Your task to perform on an android device: delete a single message in the gmail app Image 0: 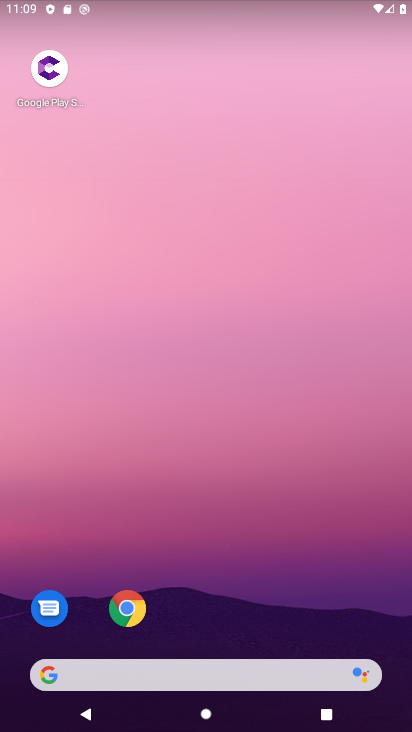
Step 0: drag from (242, 536) to (228, 128)
Your task to perform on an android device: delete a single message in the gmail app Image 1: 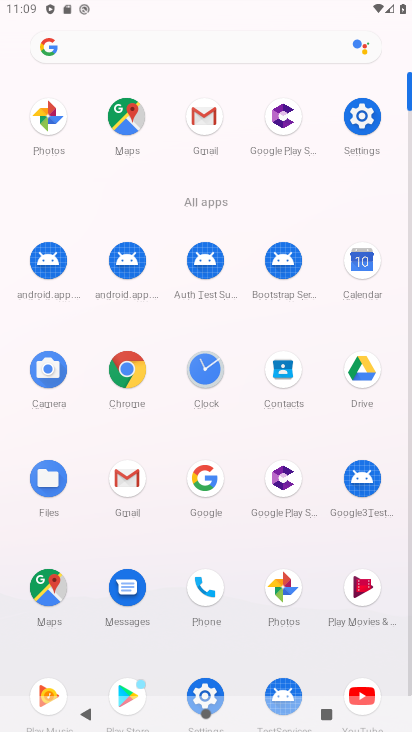
Step 1: click (196, 111)
Your task to perform on an android device: delete a single message in the gmail app Image 2: 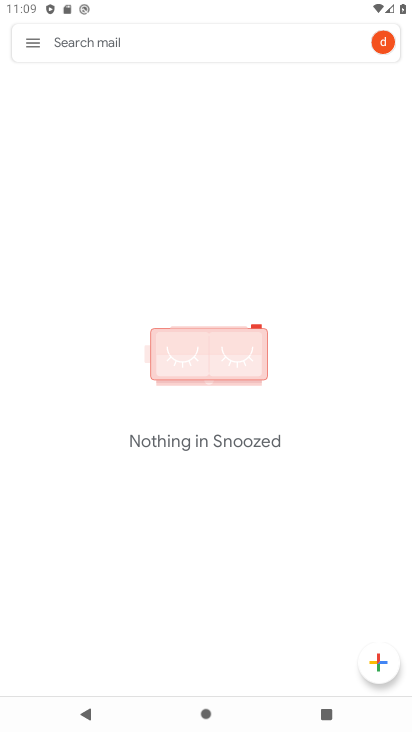
Step 2: click (31, 42)
Your task to perform on an android device: delete a single message in the gmail app Image 3: 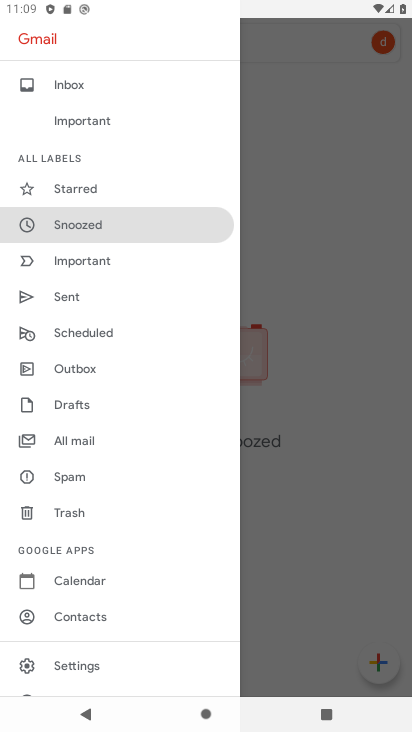
Step 3: click (80, 430)
Your task to perform on an android device: delete a single message in the gmail app Image 4: 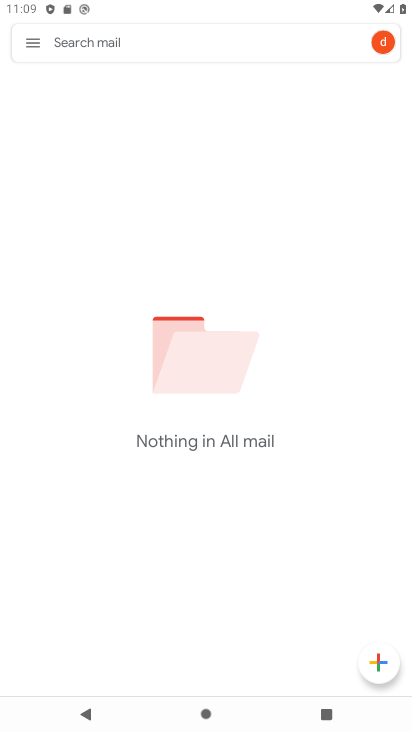
Step 4: task complete